Your task to perform on an android device: Show me productivity apps on the Play Store Image 0: 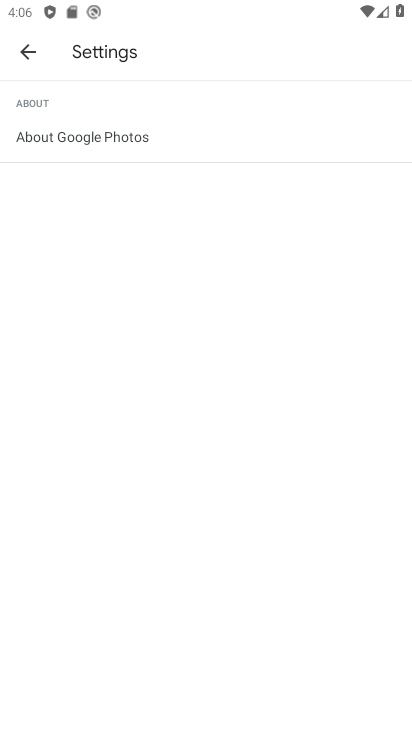
Step 0: press home button
Your task to perform on an android device: Show me productivity apps on the Play Store Image 1: 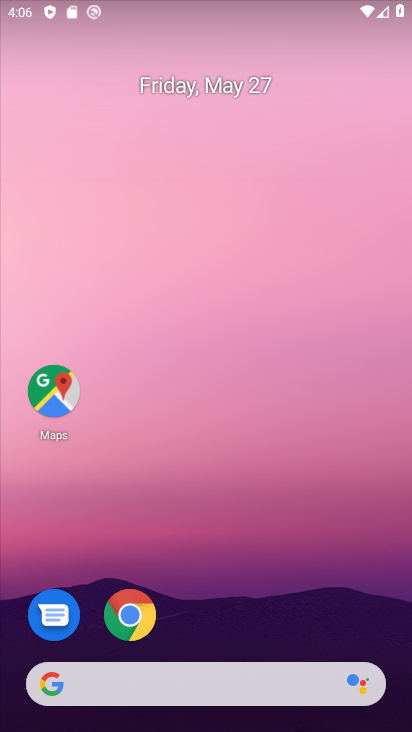
Step 1: drag from (229, 384) to (132, 20)
Your task to perform on an android device: Show me productivity apps on the Play Store Image 2: 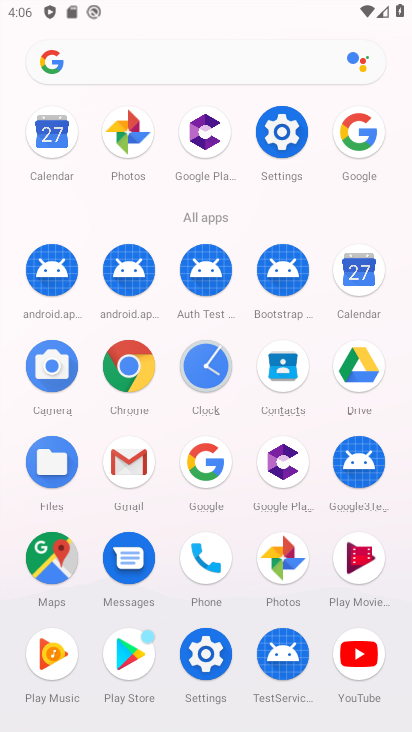
Step 2: click (127, 643)
Your task to perform on an android device: Show me productivity apps on the Play Store Image 3: 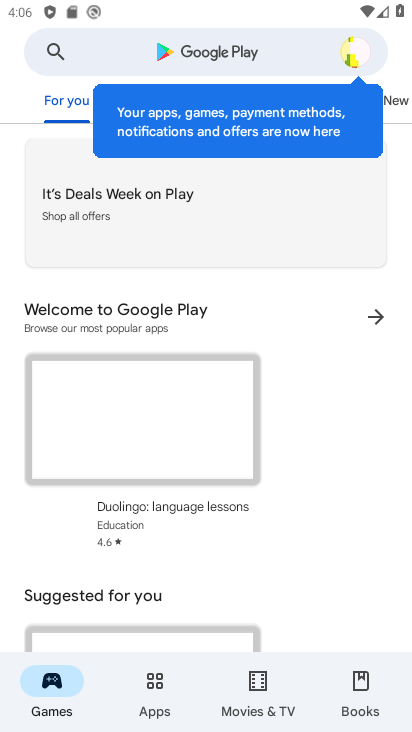
Step 3: click (147, 702)
Your task to perform on an android device: Show me productivity apps on the Play Store Image 4: 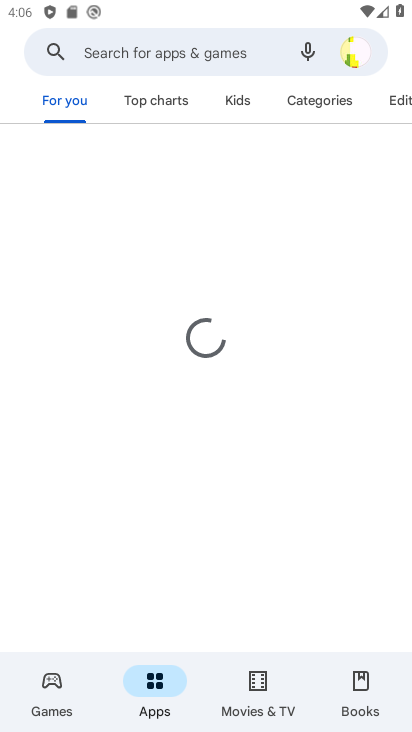
Step 4: click (204, 44)
Your task to perform on an android device: Show me productivity apps on the Play Store Image 5: 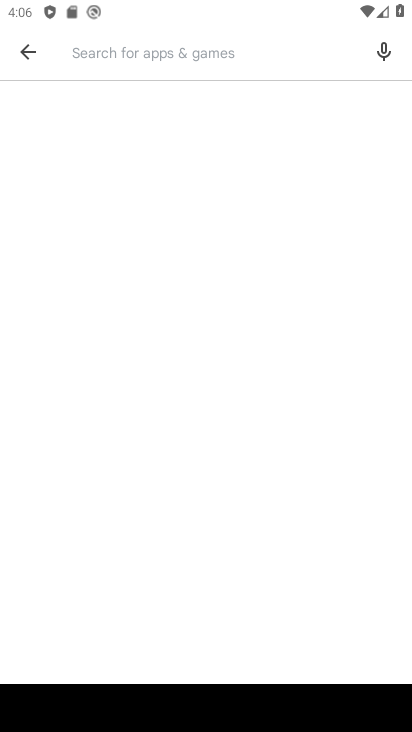
Step 5: type "productivity apps"
Your task to perform on an android device: Show me productivity apps on the Play Store Image 6: 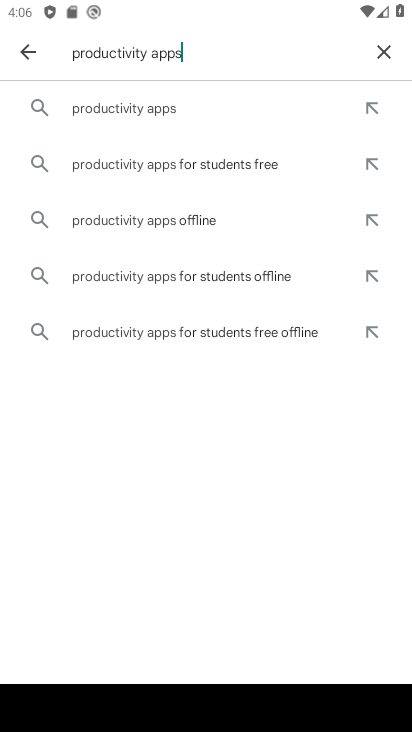
Step 6: click (218, 110)
Your task to perform on an android device: Show me productivity apps on the Play Store Image 7: 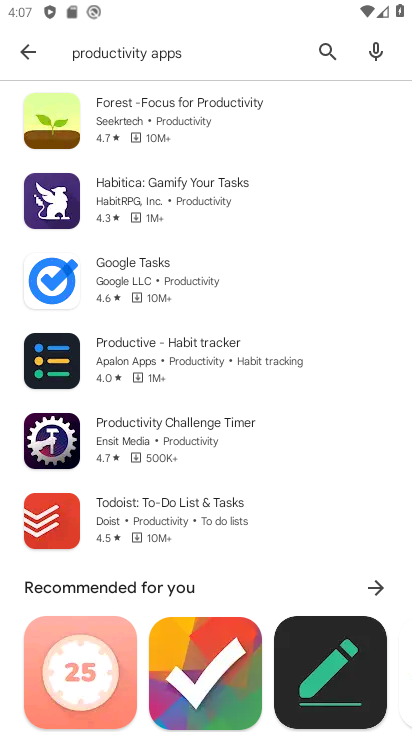
Step 7: task complete